Your task to perform on an android device: turn off airplane mode Image 0: 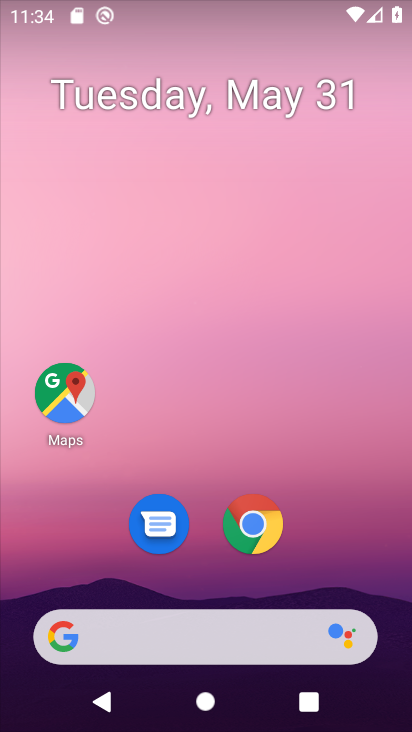
Step 0: drag from (314, 569) to (288, 0)
Your task to perform on an android device: turn off airplane mode Image 1: 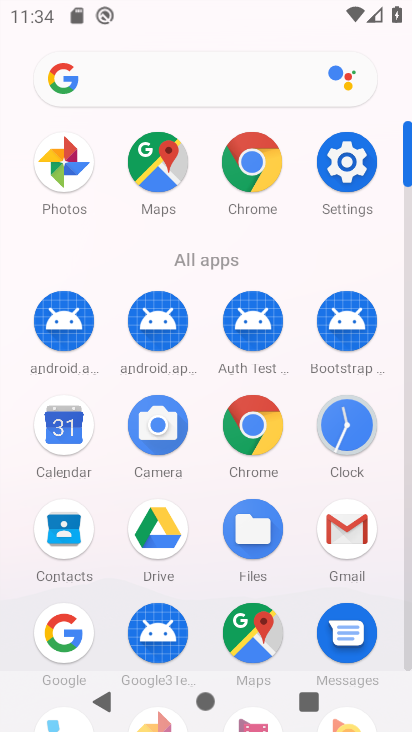
Step 1: click (344, 156)
Your task to perform on an android device: turn off airplane mode Image 2: 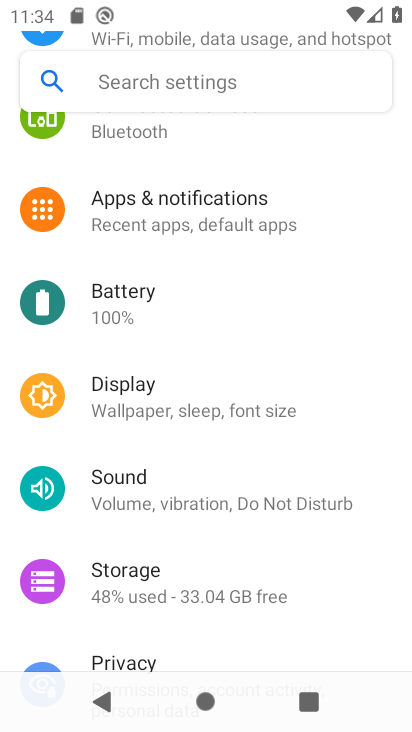
Step 2: drag from (254, 237) to (249, 549)
Your task to perform on an android device: turn off airplane mode Image 3: 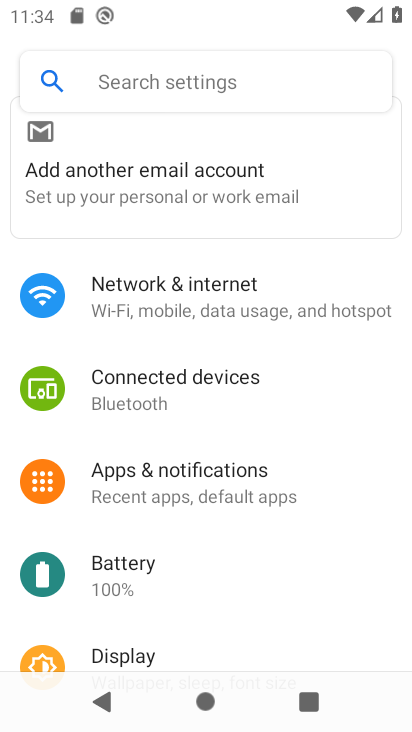
Step 3: click (259, 301)
Your task to perform on an android device: turn off airplane mode Image 4: 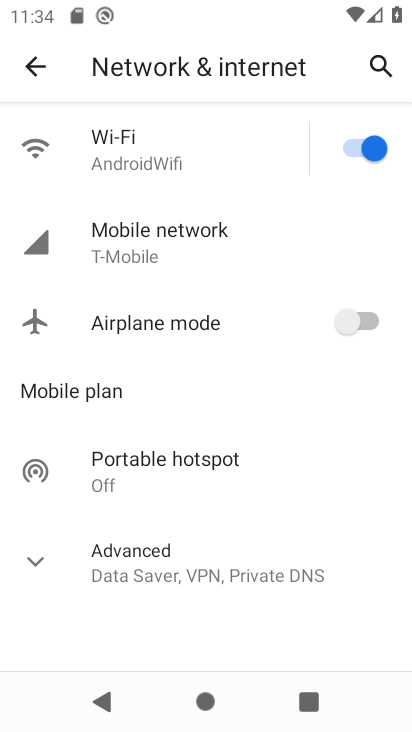
Step 4: task complete